Your task to perform on an android device: Go to sound settings Image 0: 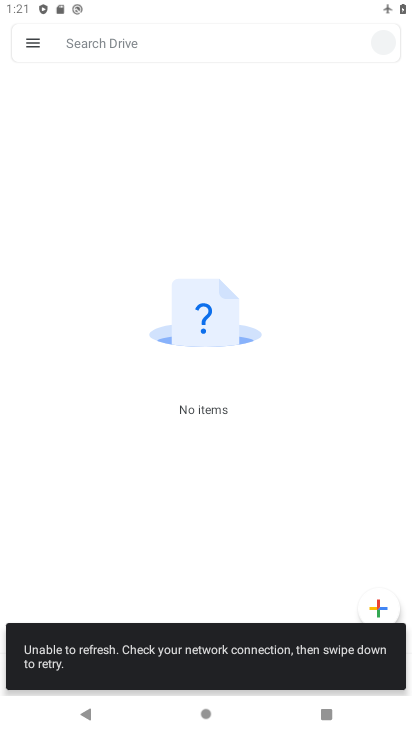
Step 0: click (249, 716)
Your task to perform on an android device: Go to sound settings Image 1: 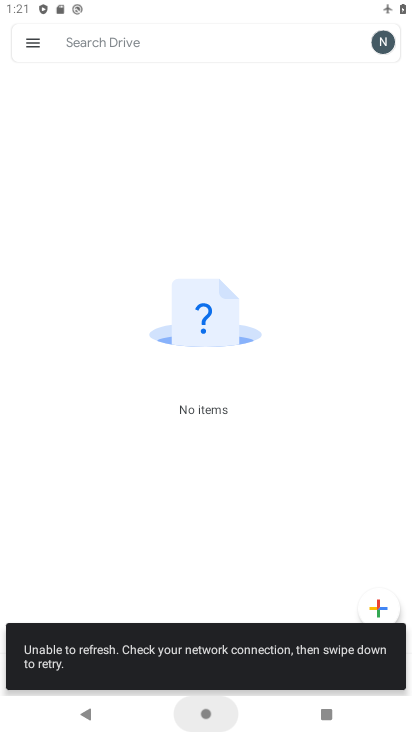
Step 1: click (233, 264)
Your task to perform on an android device: Go to sound settings Image 2: 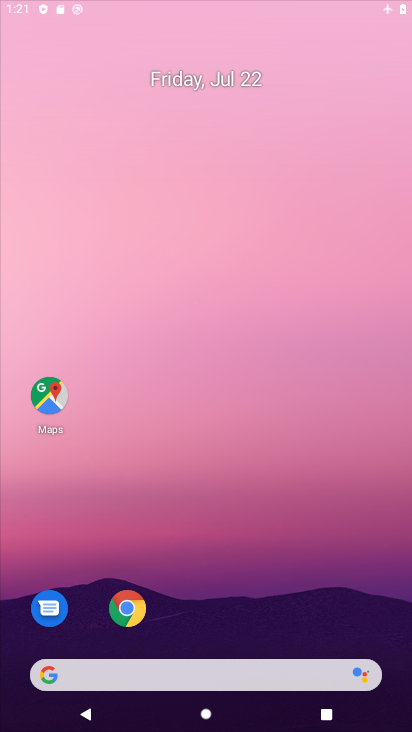
Step 2: press home button
Your task to perform on an android device: Go to sound settings Image 3: 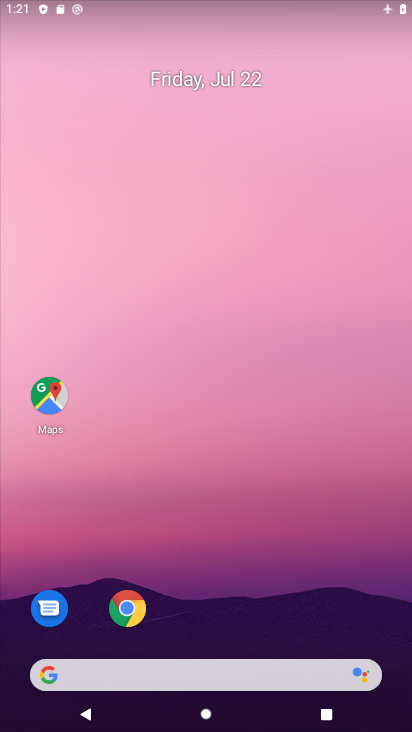
Step 3: drag from (232, 717) to (232, 119)
Your task to perform on an android device: Go to sound settings Image 4: 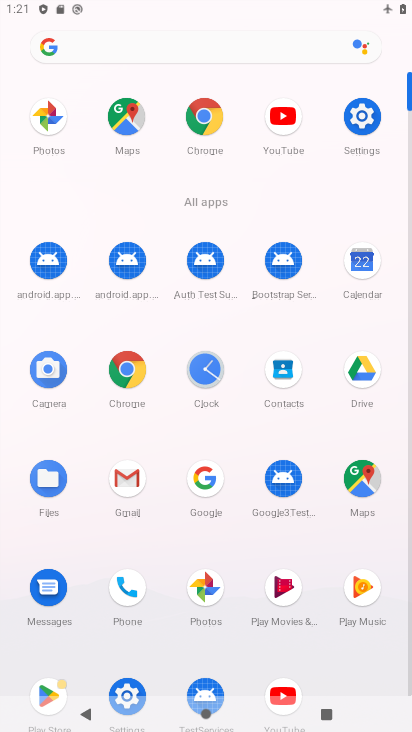
Step 4: click (371, 113)
Your task to perform on an android device: Go to sound settings Image 5: 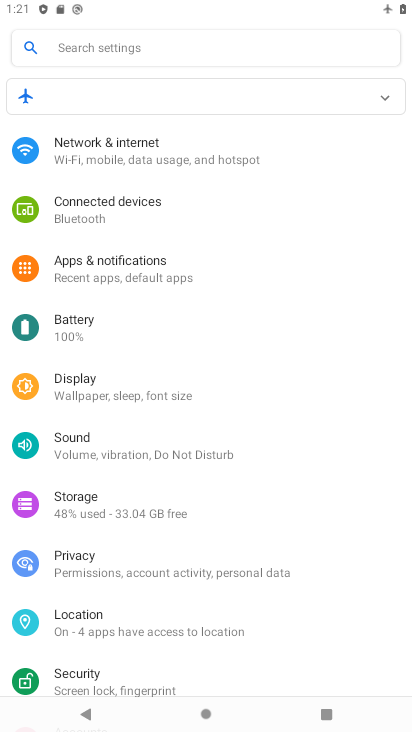
Step 5: click (66, 451)
Your task to perform on an android device: Go to sound settings Image 6: 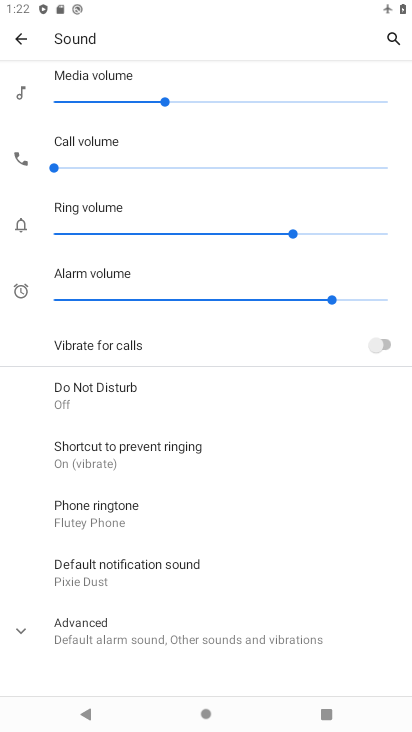
Step 6: task complete